Your task to perform on an android device: turn on showing notifications on the lock screen Image 0: 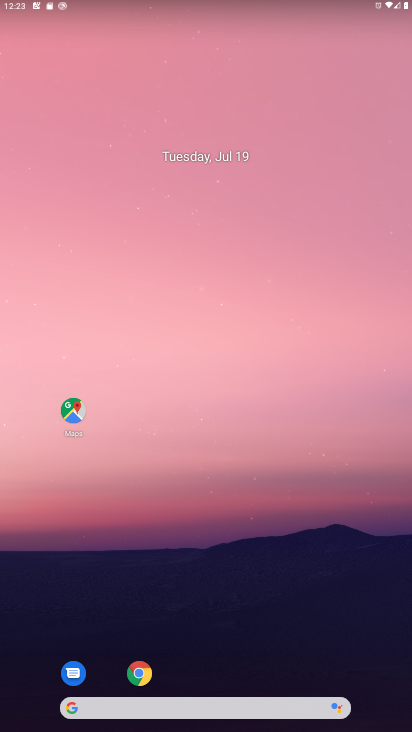
Step 0: drag from (196, 638) to (196, 208)
Your task to perform on an android device: turn on showing notifications on the lock screen Image 1: 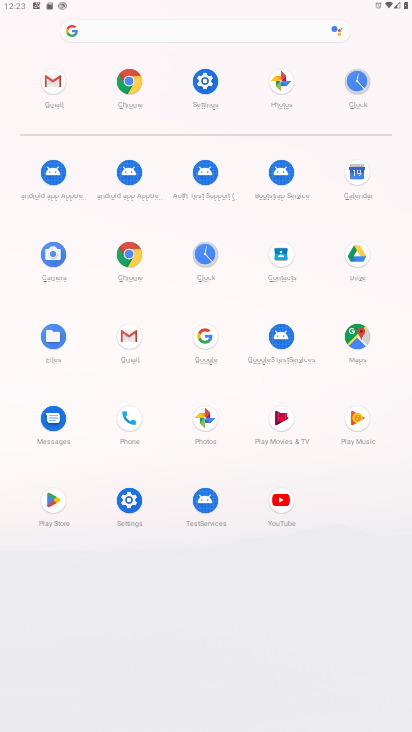
Step 1: click (218, 82)
Your task to perform on an android device: turn on showing notifications on the lock screen Image 2: 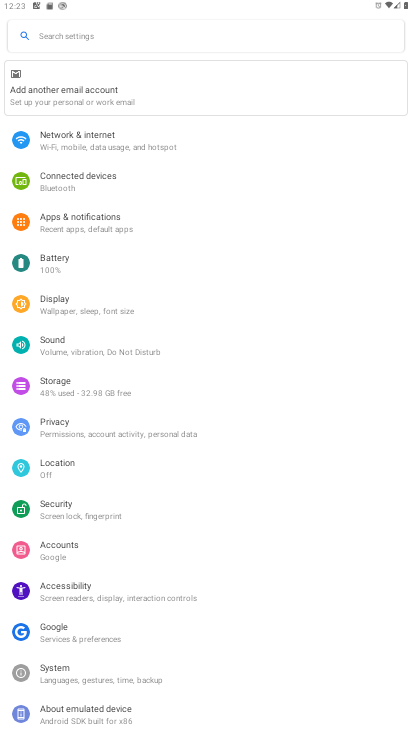
Step 2: click (146, 218)
Your task to perform on an android device: turn on showing notifications on the lock screen Image 3: 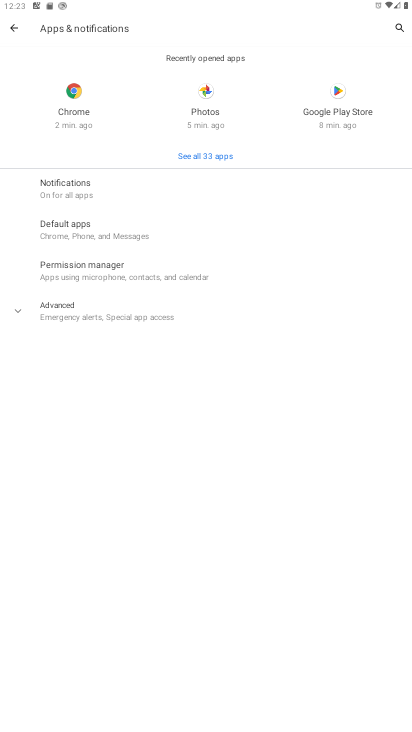
Step 3: click (126, 190)
Your task to perform on an android device: turn on showing notifications on the lock screen Image 4: 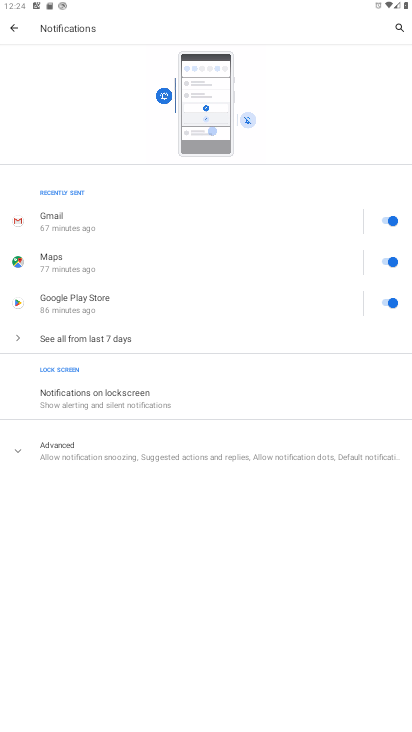
Step 4: click (199, 392)
Your task to perform on an android device: turn on showing notifications on the lock screen Image 5: 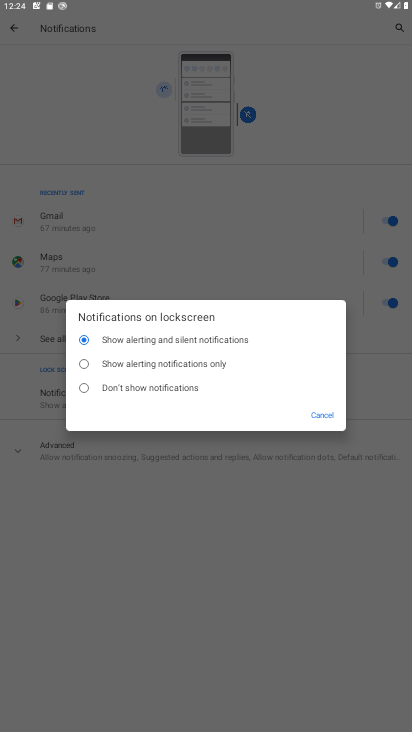
Step 5: task complete